Your task to perform on an android device: Open the map Image 0: 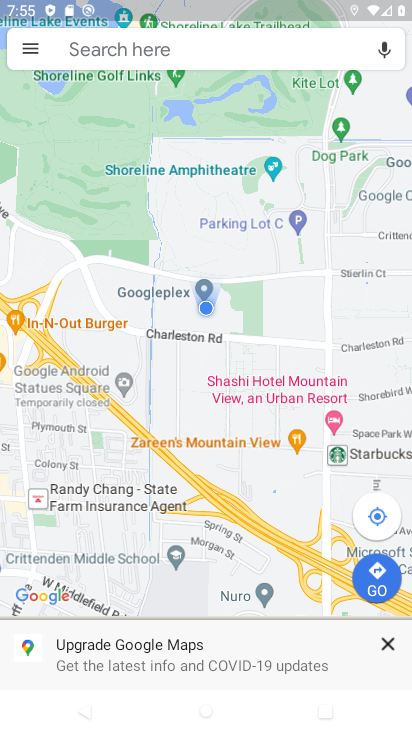
Step 0: press home button
Your task to perform on an android device: Open the map Image 1: 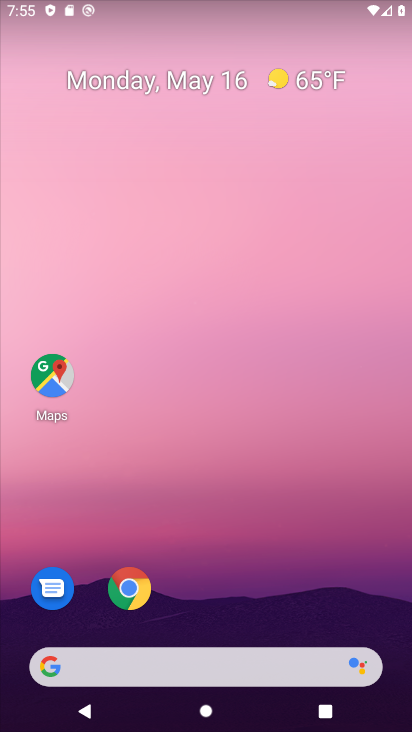
Step 1: drag from (339, 601) to (353, 144)
Your task to perform on an android device: Open the map Image 2: 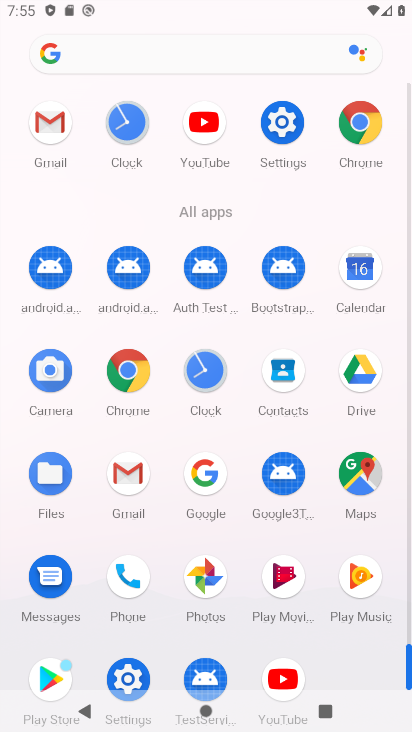
Step 2: click (368, 483)
Your task to perform on an android device: Open the map Image 3: 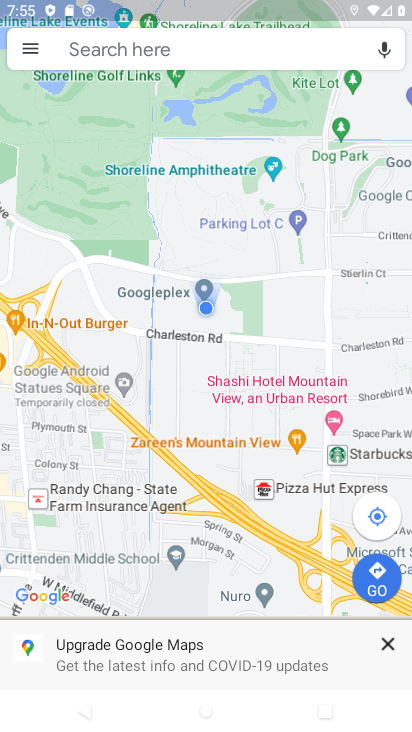
Step 3: task complete